Your task to perform on an android device: Open the map Image 0: 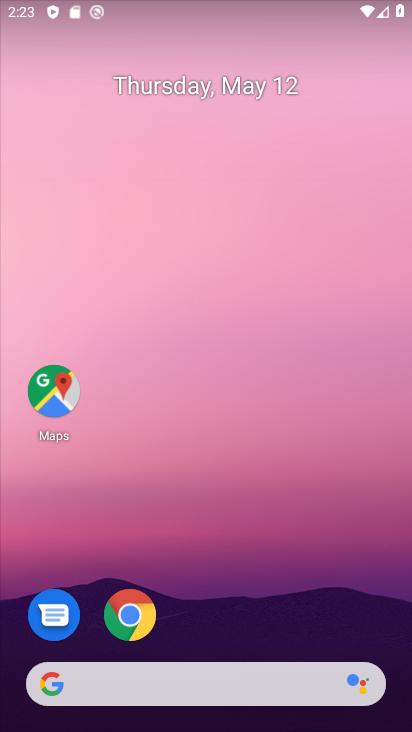
Step 0: press home button
Your task to perform on an android device: Open the map Image 1: 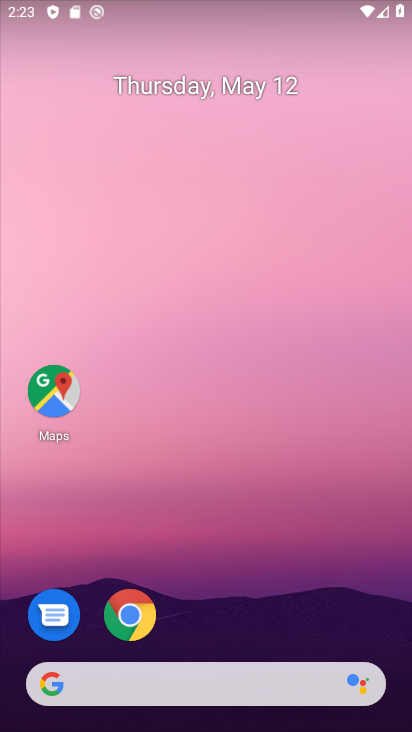
Step 1: click (49, 384)
Your task to perform on an android device: Open the map Image 2: 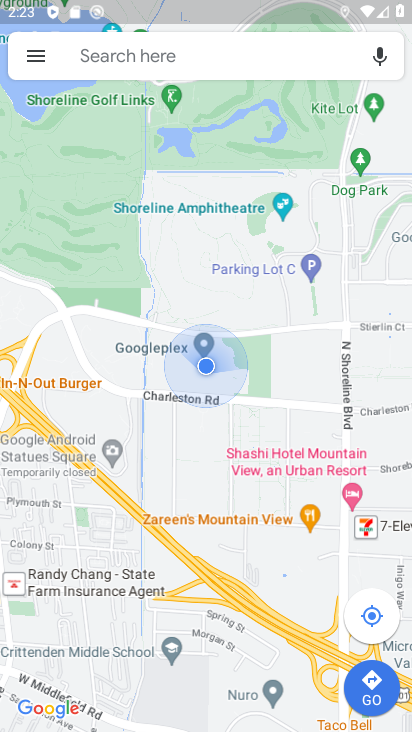
Step 2: task complete